Your task to perform on an android device: What's on my calendar today? Image 0: 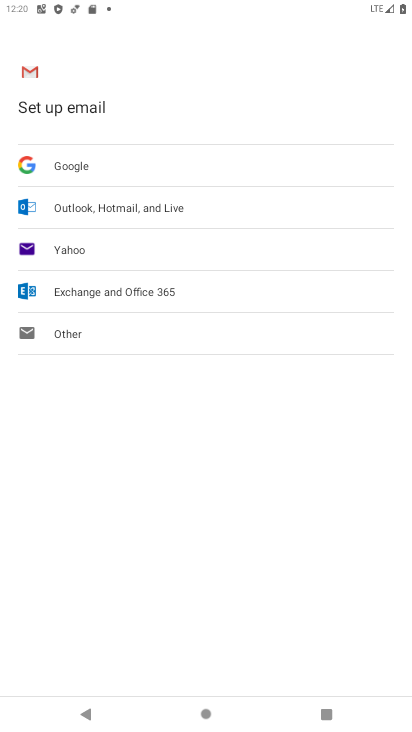
Step 0: press home button
Your task to perform on an android device: What's on my calendar today? Image 1: 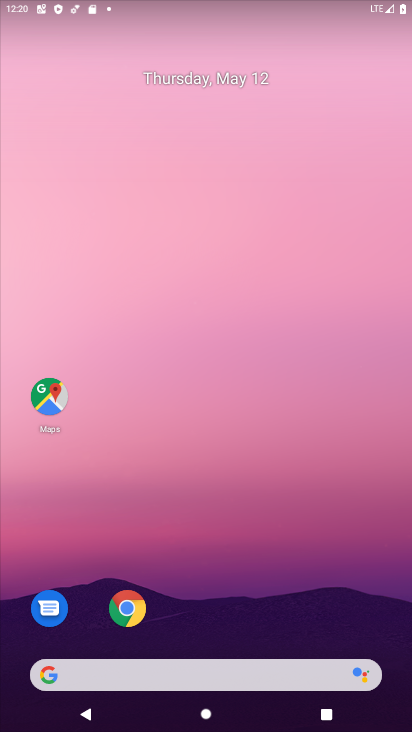
Step 1: drag from (238, 612) to (298, 9)
Your task to perform on an android device: What's on my calendar today? Image 2: 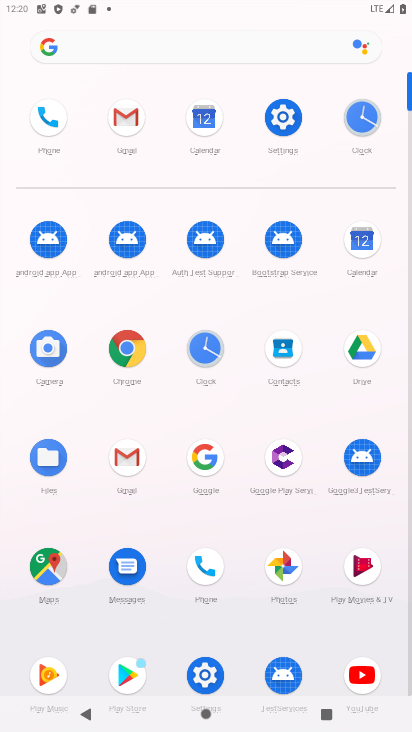
Step 2: click (203, 135)
Your task to perform on an android device: What's on my calendar today? Image 3: 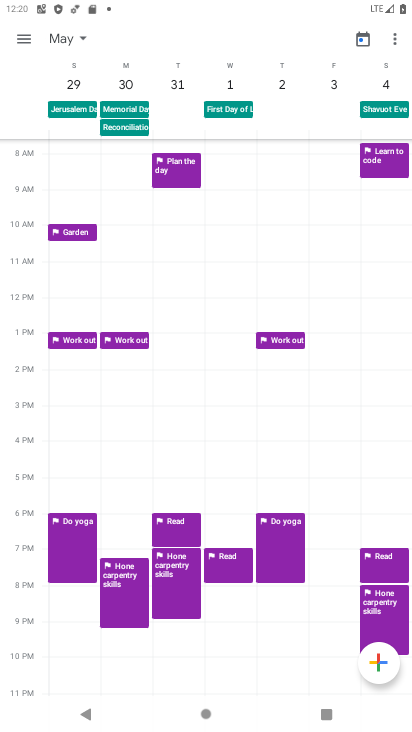
Step 3: click (26, 44)
Your task to perform on an android device: What's on my calendar today? Image 4: 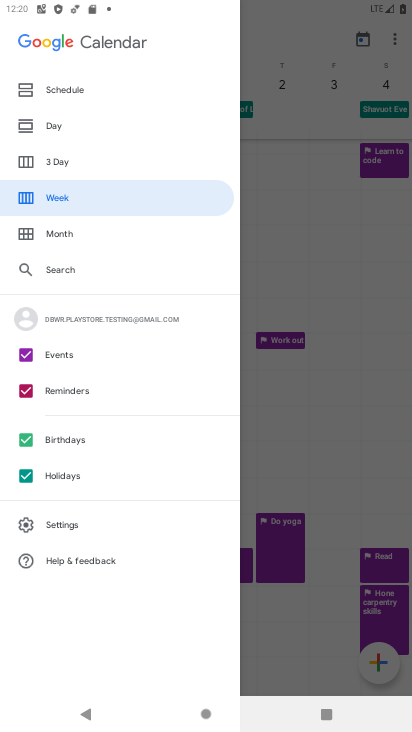
Step 4: click (57, 92)
Your task to perform on an android device: What's on my calendar today? Image 5: 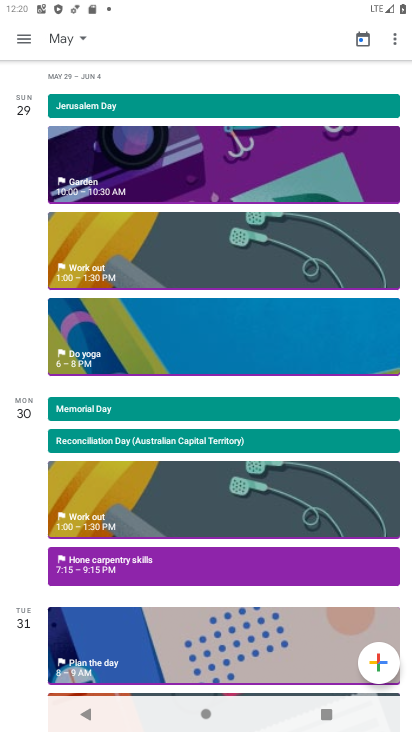
Step 5: click (83, 41)
Your task to perform on an android device: What's on my calendar today? Image 6: 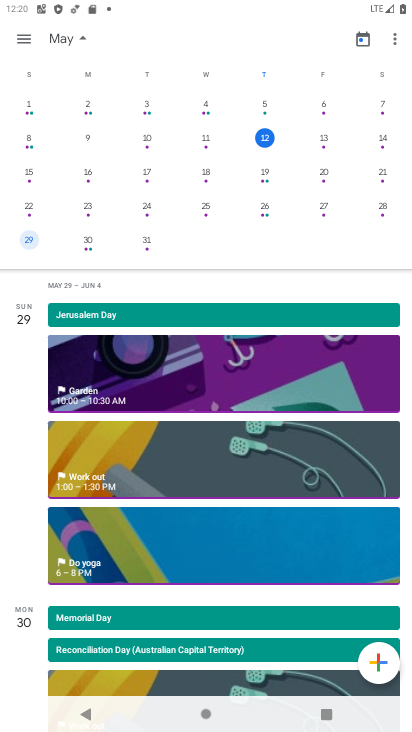
Step 6: click (264, 146)
Your task to perform on an android device: What's on my calendar today? Image 7: 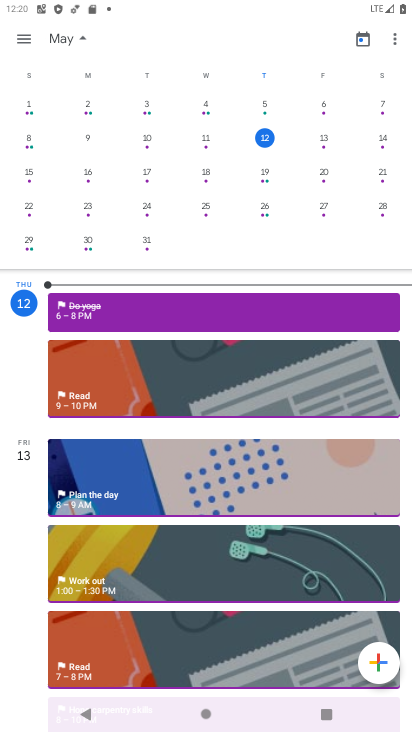
Step 7: click (111, 302)
Your task to perform on an android device: What's on my calendar today? Image 8: 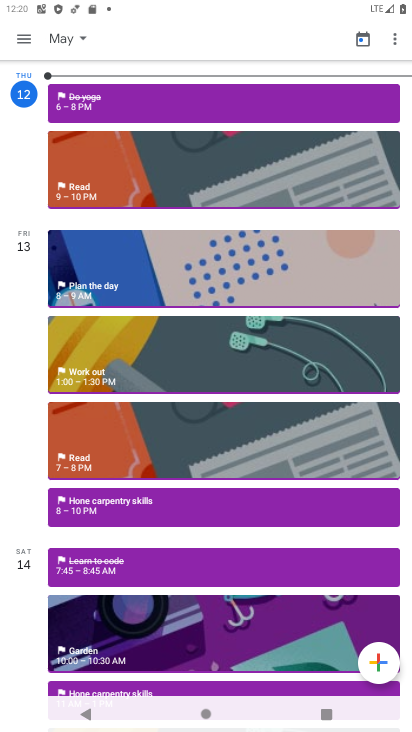
Step 8: click (102, 115)
Your task to perform on an android device: What's on my calendar today? Image 9: 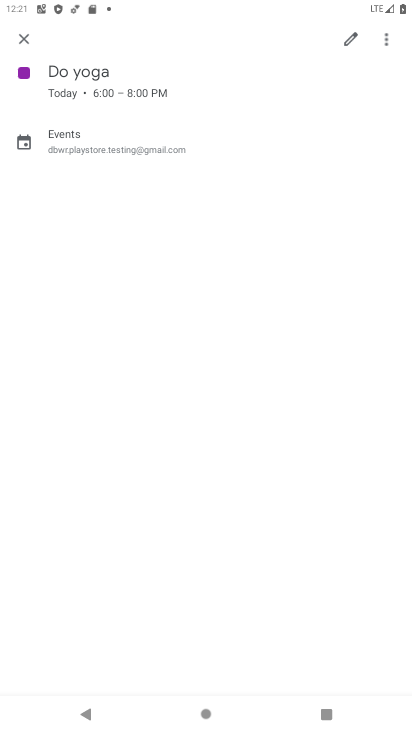
Step 9: task complete